Your task to perform on an android device: Go to location settings Image 0: 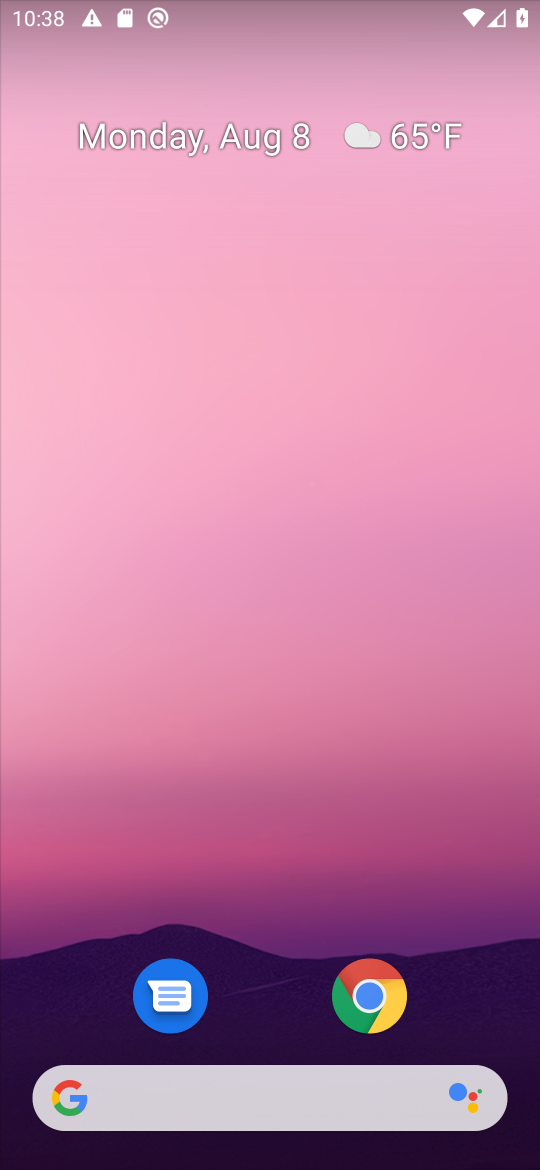
Step 0: press home button
Your task to perform on an android device: Go to location settings Image 1: 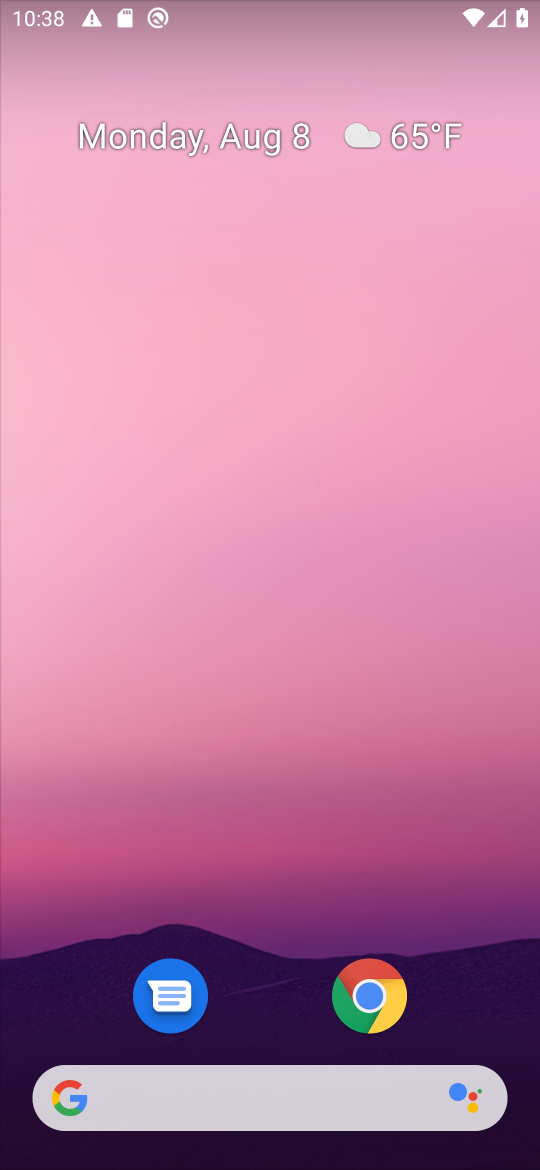
Step 1: drag from (257, 1003) to (17, 79)
Your task to perform on an android device: Go to location settings Image 2: 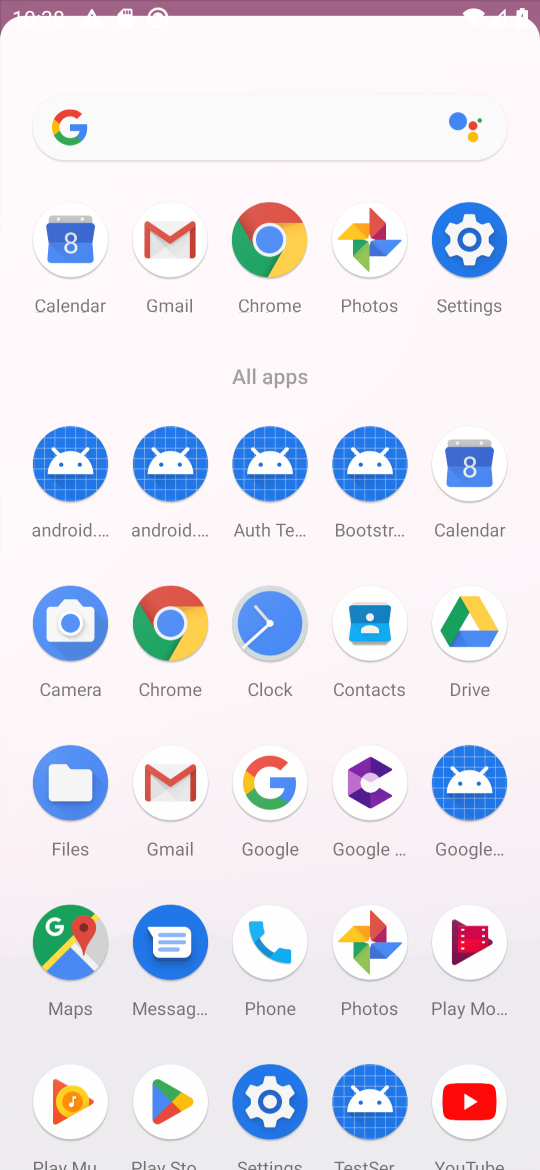
Step 2: click (462, 271)
Your task to perform on an android device: Go to location settings Image 3: 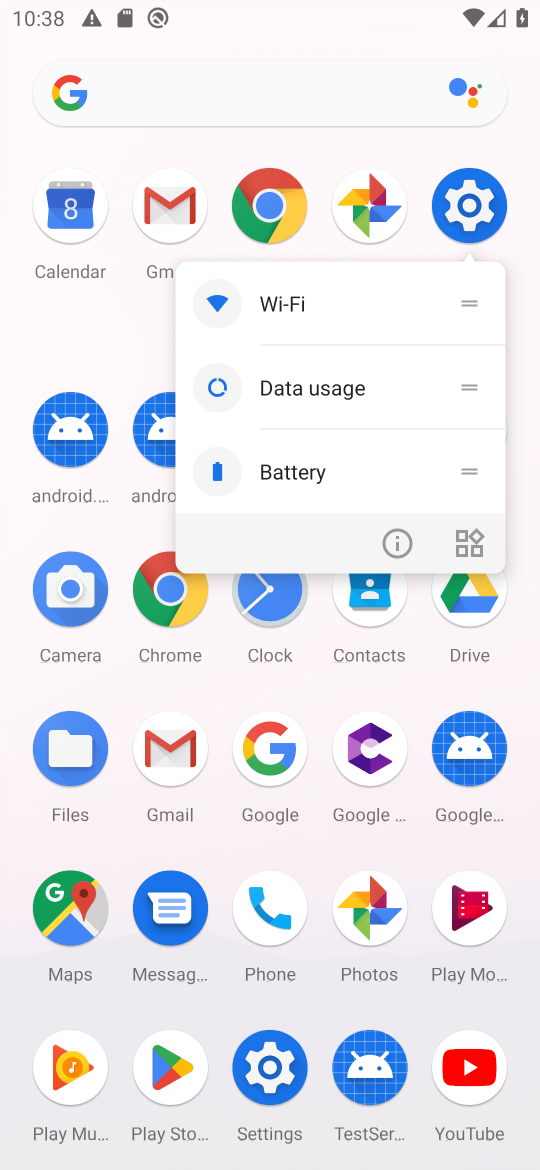
Step 3: click (465, 202)
Your task to perform on an android device: Go to location settings Image 4: 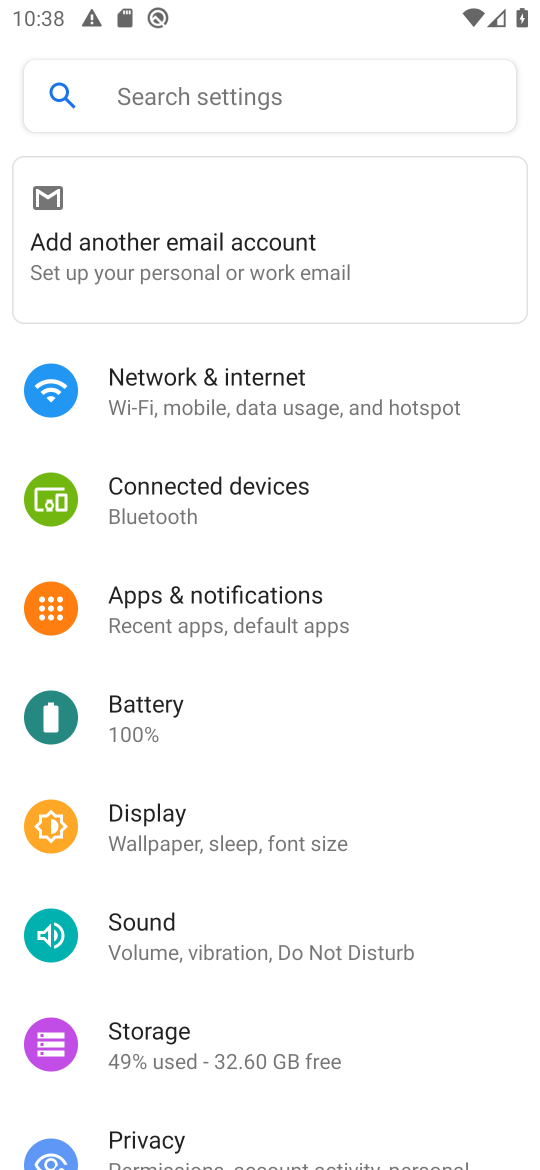
Step 4: drag from (453, 1051) to (425, 117)
Your task to perform on an android device: Go to location settings Image 5: 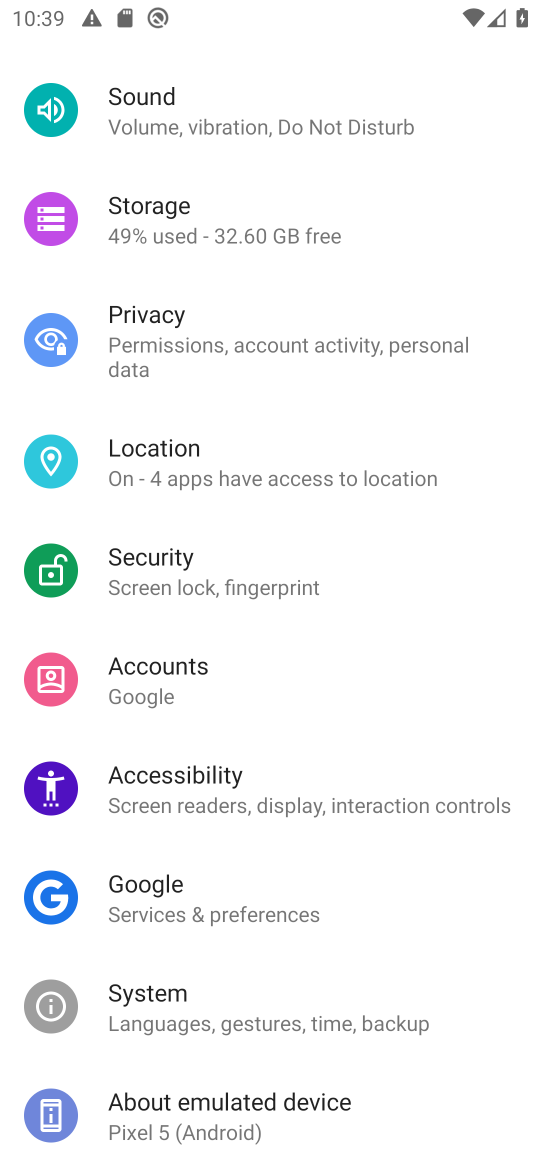
Step 5: click (160, 470)
Your task to perform on an android device: Go to location settings Image 6: 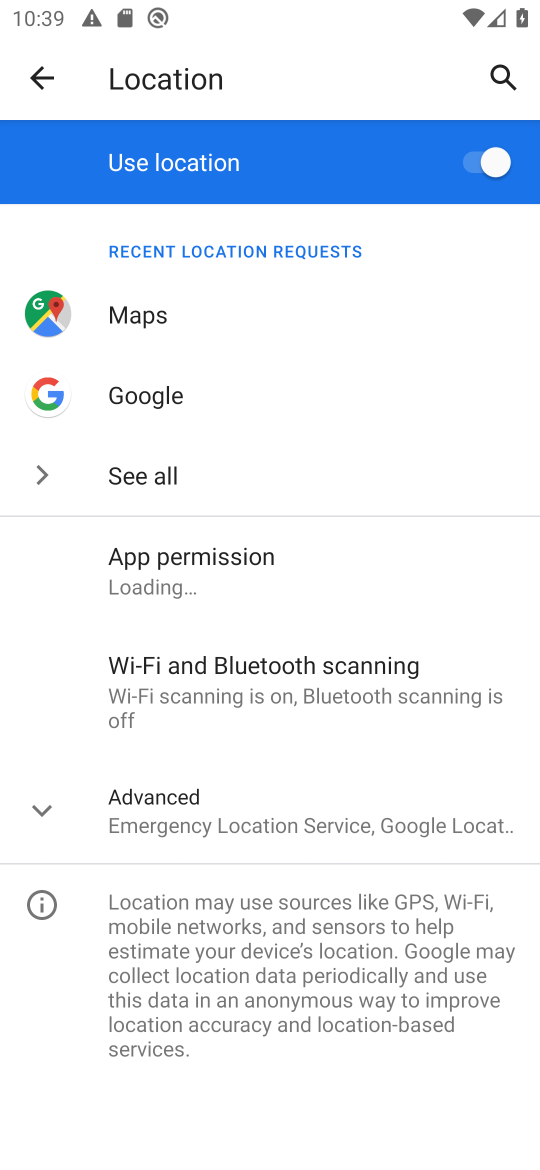
Step 6: task complete